Your task to perform on an android device: Search for the best rated 4k tvs on Walmart. Image 0: 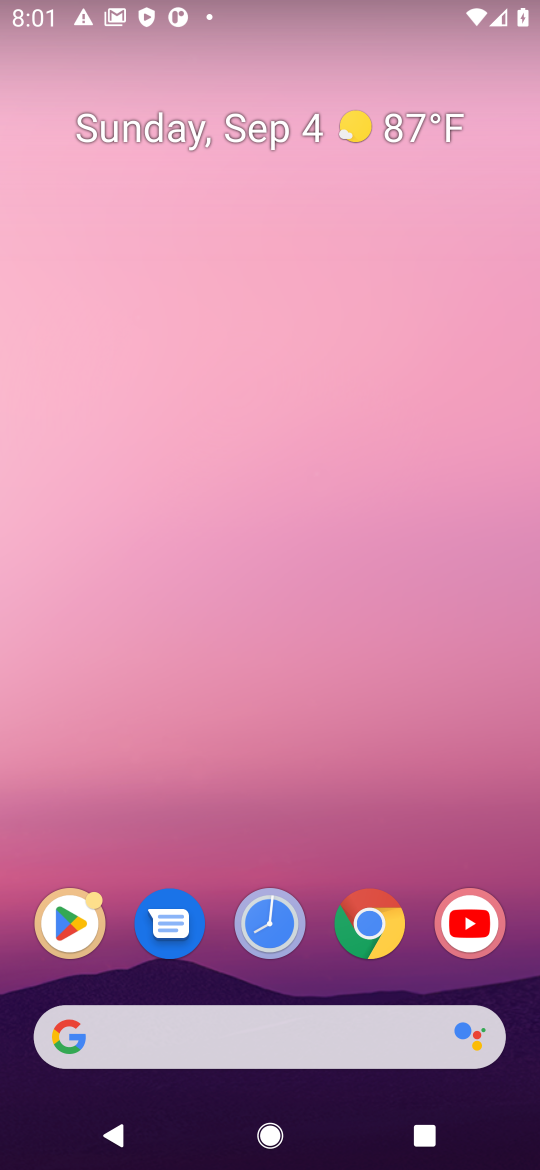
Step 0: press home button
Your task to perform on an android device: Search for the best rated 4k tvs on Walmart. Image 1: 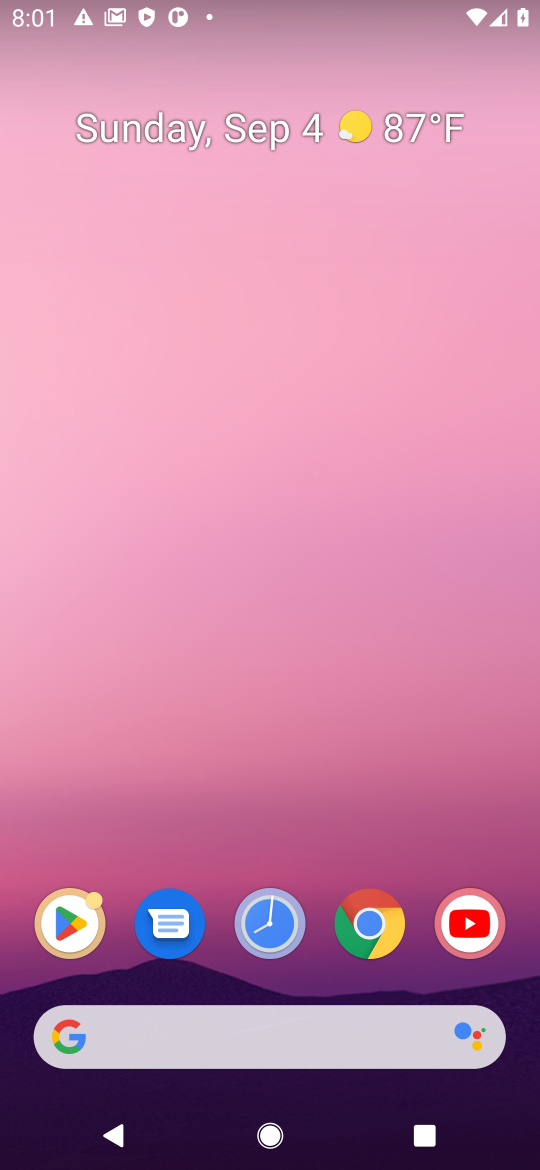
Step 1: click (383, 1035)
Your task to perform on an android device: Search for the best rated 4k tvs on Walmart. Image 2: 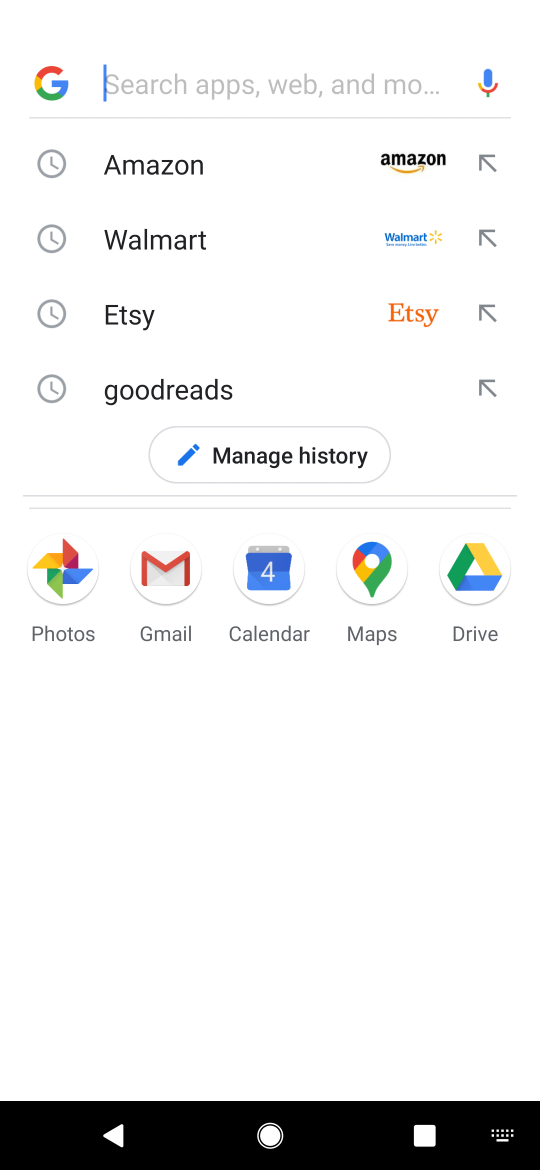
Step 2: press enter
Your task to perform on an android device: Search for the best rated 4k tvs on Walmart. Image 3: 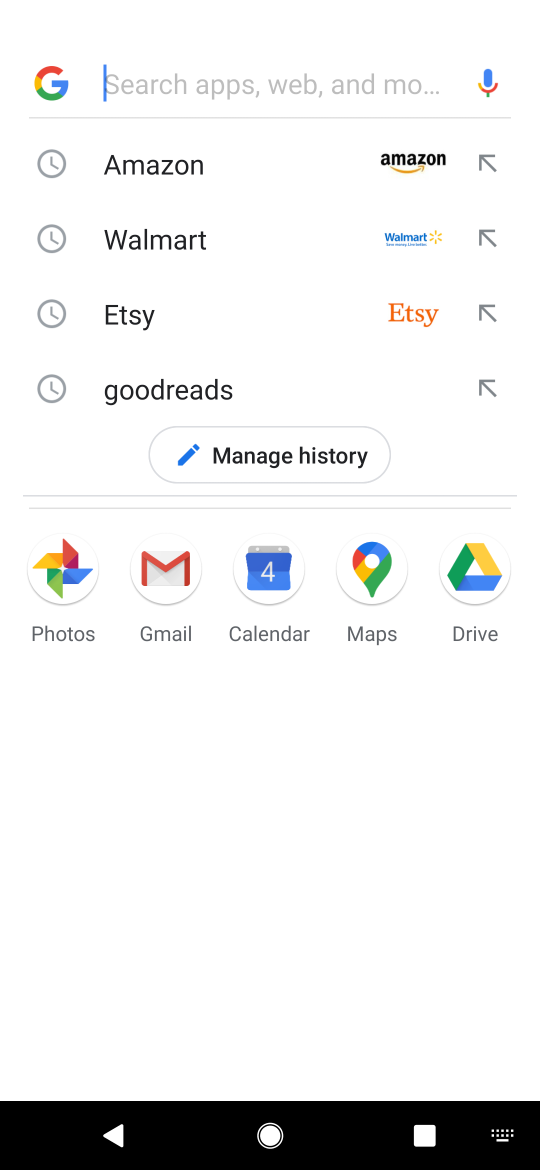
Step 3: type "walmart"
Your task to perform on an android device: Search for the best rated 4k tvs on Walmart. Image 4: 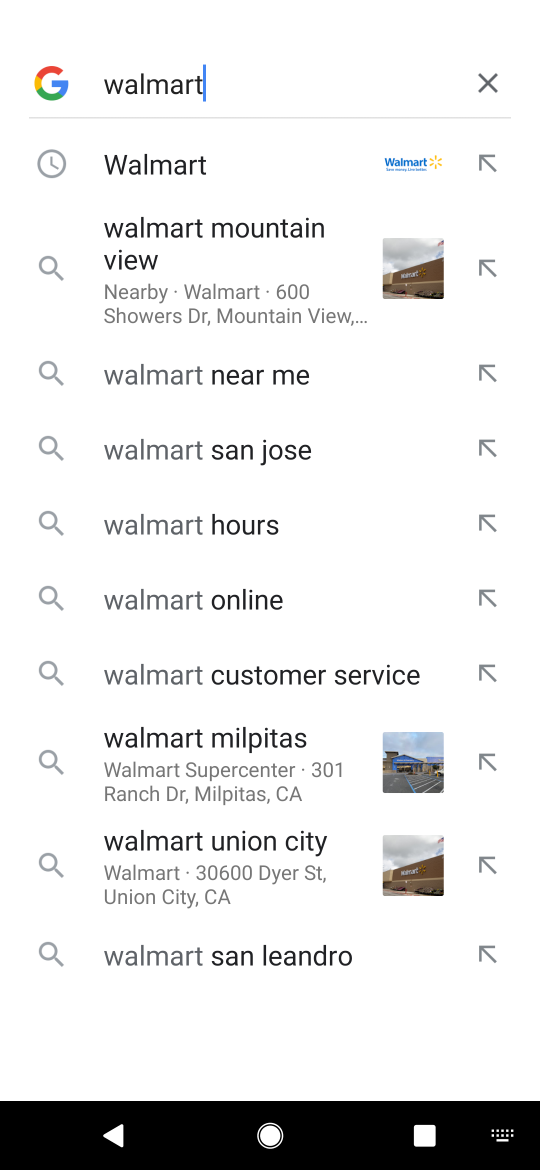
Step 4: click (332, 152)
Your task to perform on an android device: Search for the best rated 4k tvs on Walmart. Image 5: 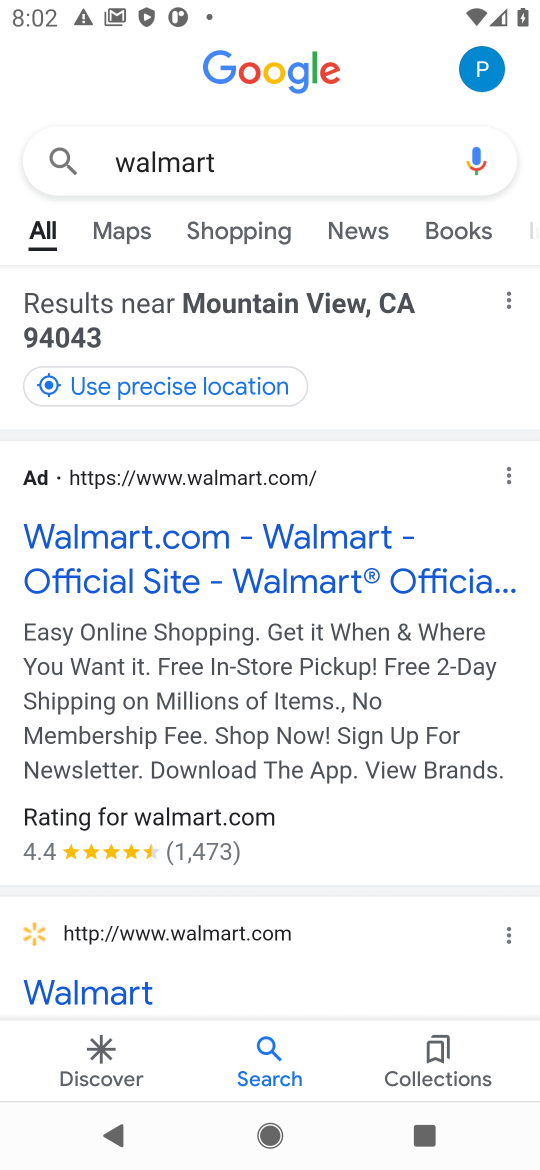
Step 5: click (319, 556)
Your task to perform on an android device: Search for the best rated 4k tvs on Walmart. Image 6: 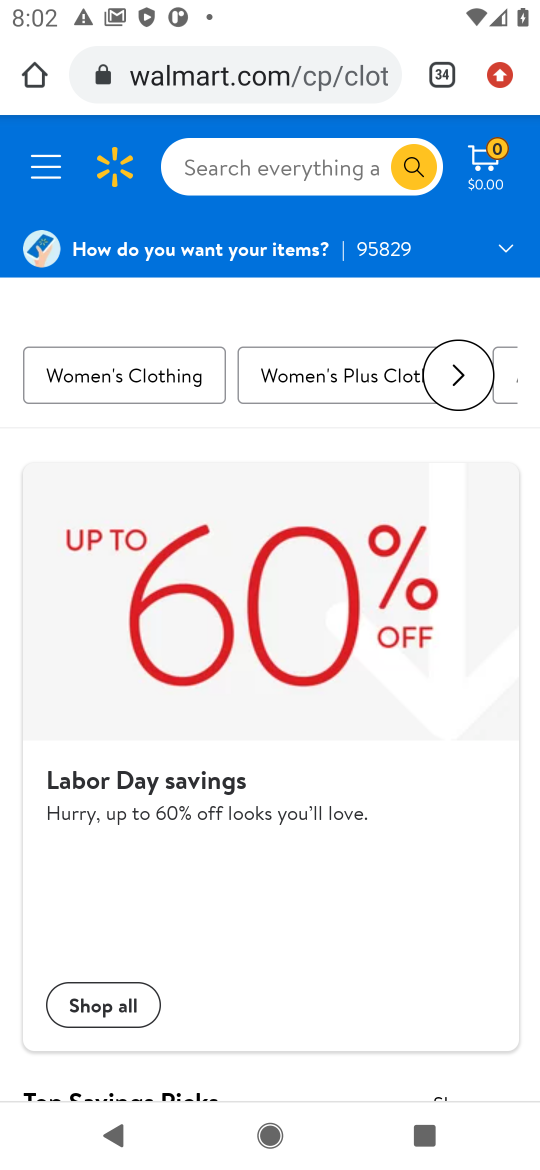
Step 6: click (273, 160)
Your task to perform on an android device: Search for the best rated 4k tvs on Walmart. Image 7: 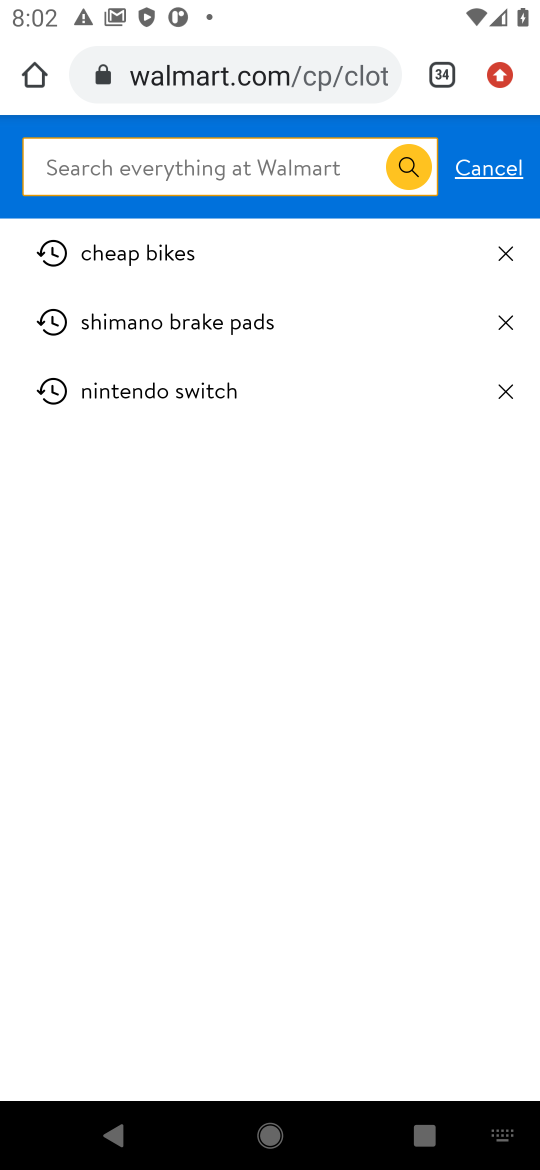
Step 7: type "best rated 4k tvs"
Your task to perform on an android device: Search for the best rated 4k tvs on Walmart. Image 8: 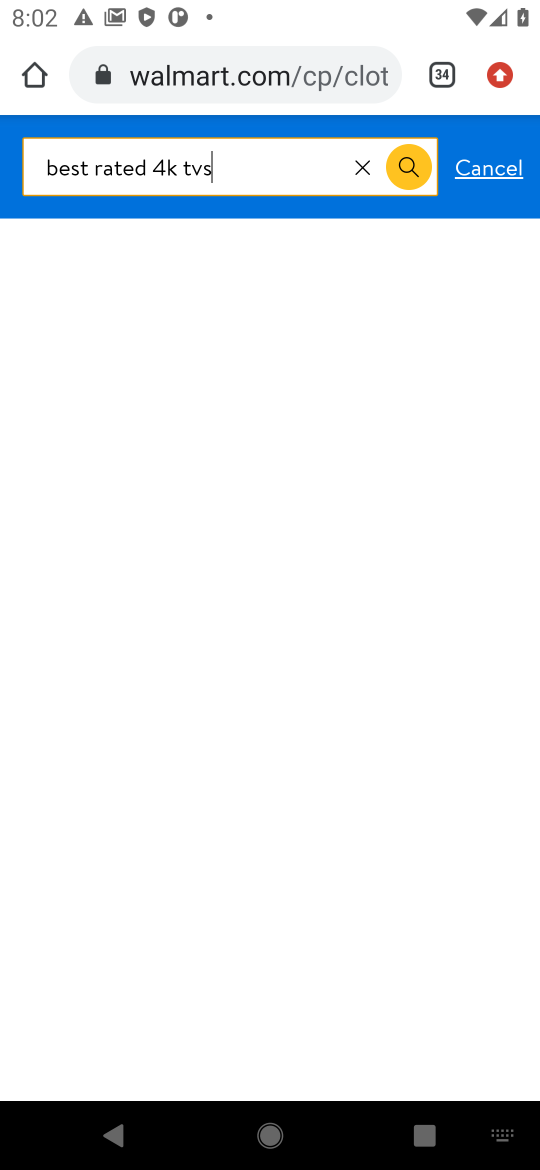
Step 8: press enter
Your task to perform on an android device: Search for the best rated 4k tvs on Walmart. Image 9: 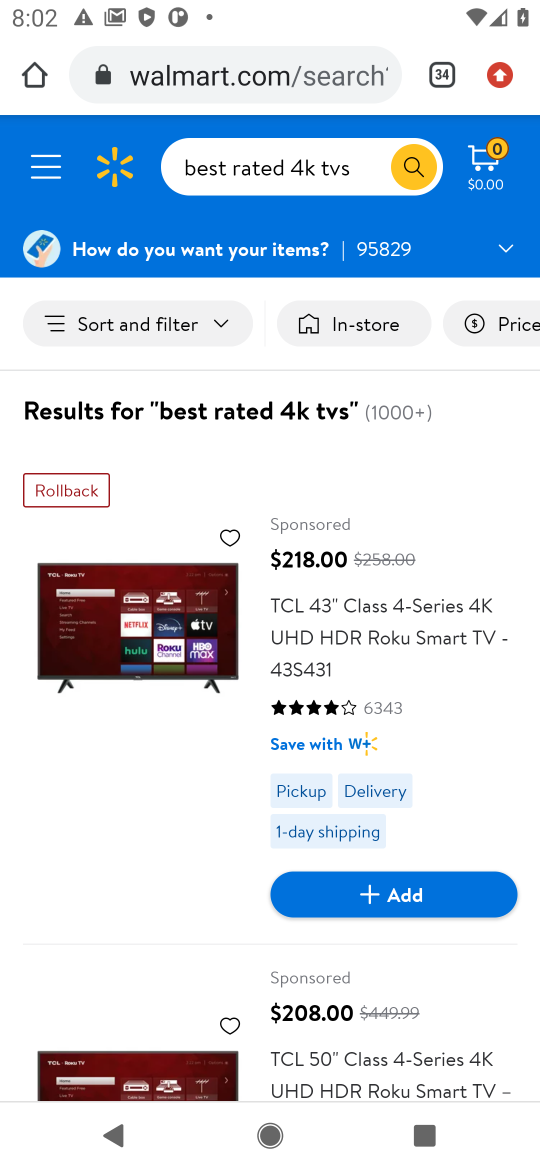
Step 9: task complete